Your task to perform on an android device: Open Chrome and go to settings Image 0: 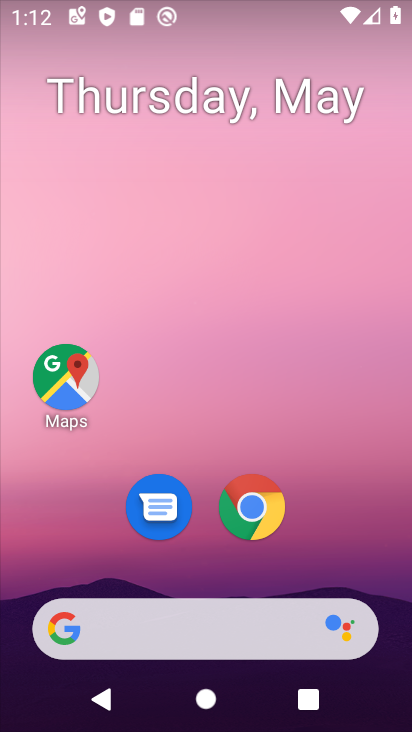
Step 0: drag from (270, 613) to (310, 136)
Your task to perform on an android device: Open Chrome and go to settings Image 1: 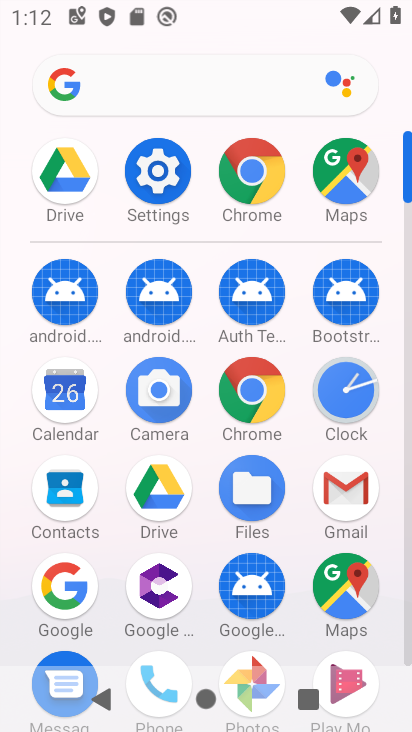
Step 1: drag from (275, 141) to (297, 9)
Your task to perform on an android device: Open Chrome and go to settings Image 2: 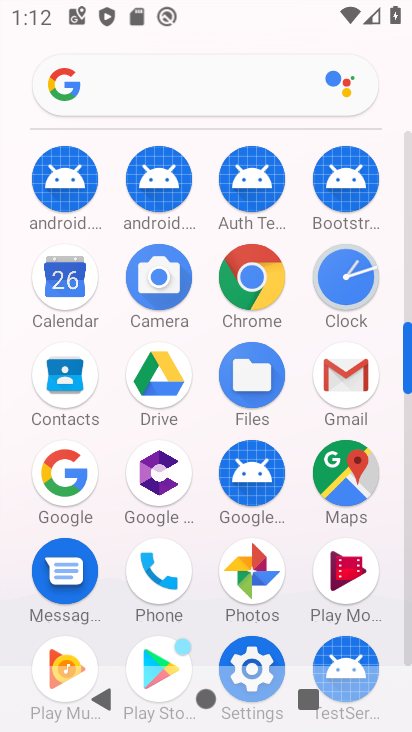
Step 2: click (274, 265)
Your task to perform on an android device: Open Chrome and go to settings Image 3: 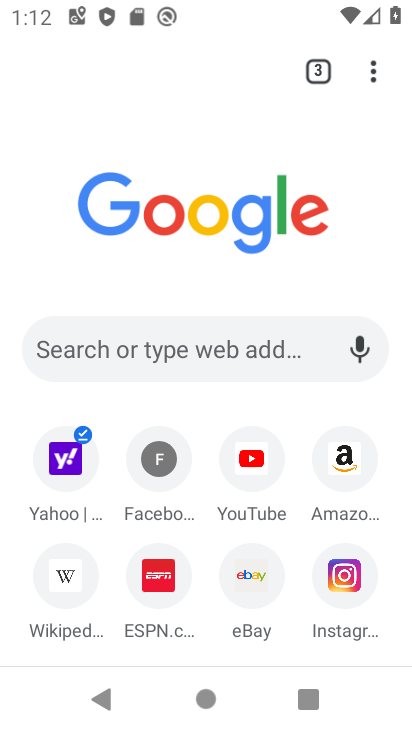
Step 3: task complete